Your task to perform on an android device: Find coffee shops on Maps Image 0: 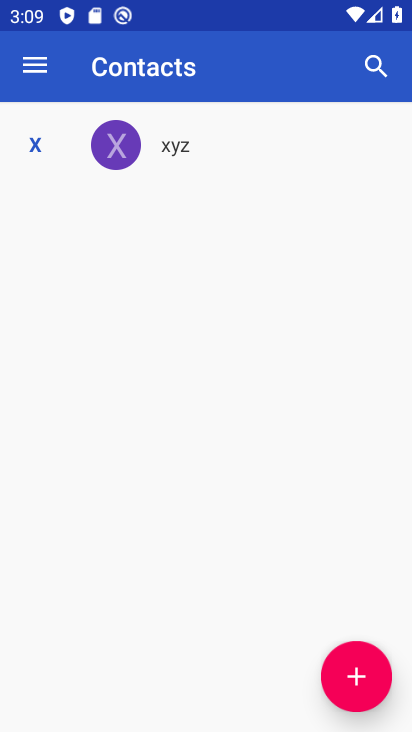
Step 0: press home button
Your task to perform on an android device: Find coffee shops on Maps Image 1: 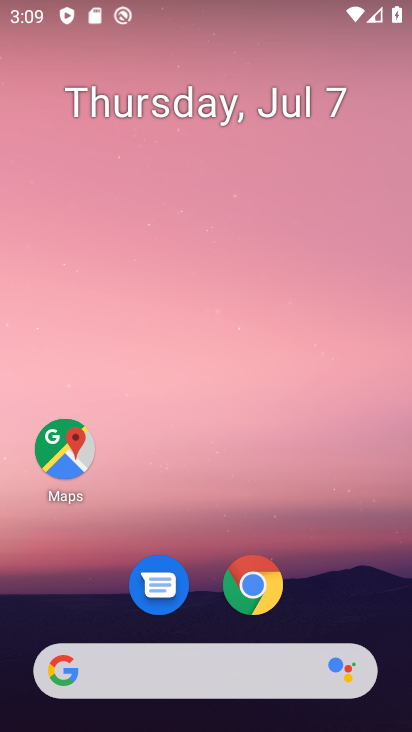
Step 1: click (52, 455)
Your task to perform on an android device: Find coffee shops on Maps Image 2: 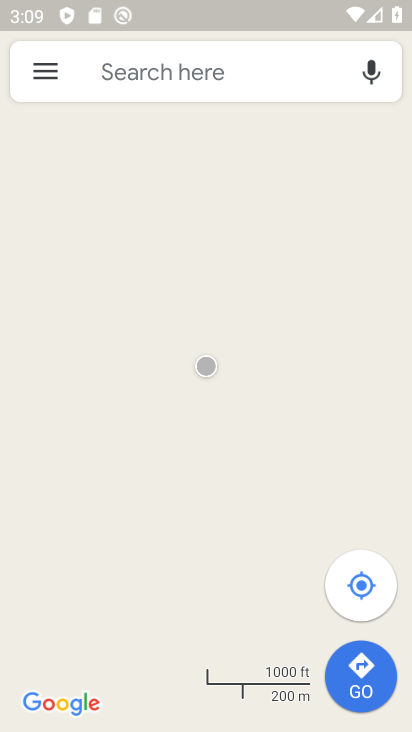
Step 2: click (170, 71)
Your task to perform on an android device: Find coffee shops on Maps Image 3: 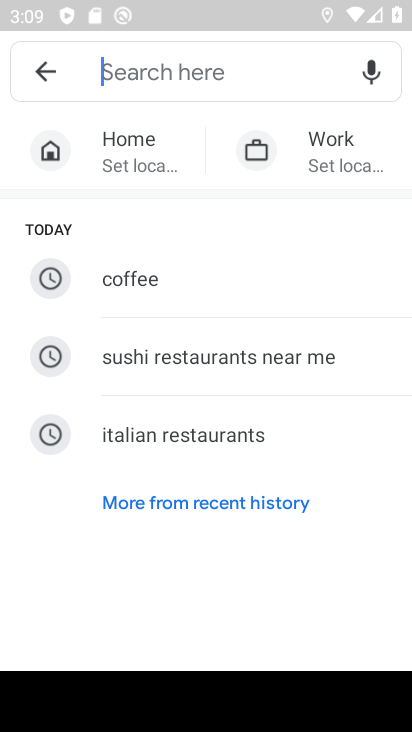
Step 3: type "coffee"
Your task to perform on an android device: Find coffee shops on Maps Image 4: 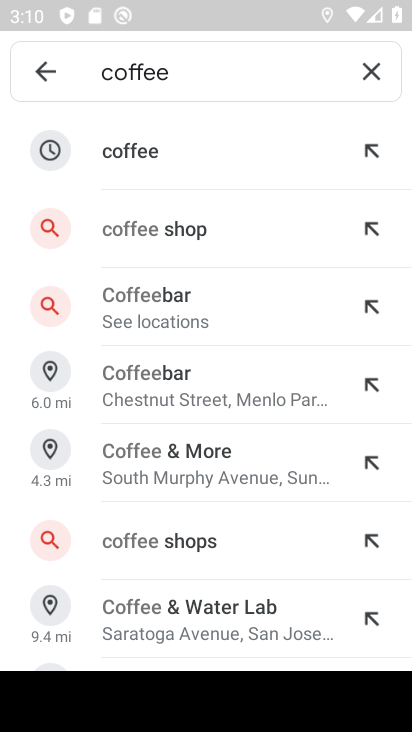
Step 4: click (205, 232)
Your task to perform on an android device: Find coffee shops on Maps Image 5: 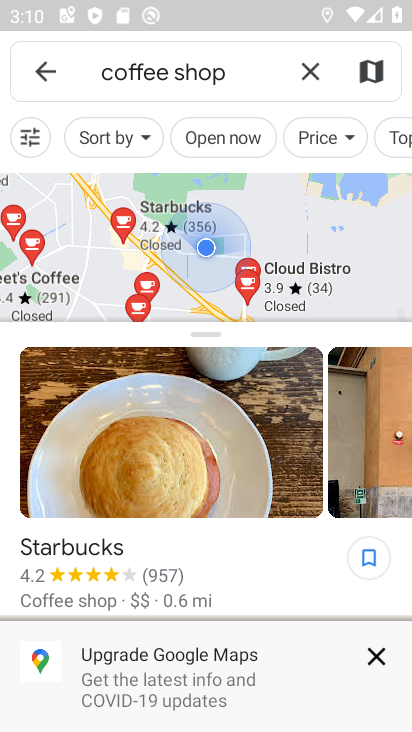
Step 5: task complete